Your task to perform on an android device: find which apps use the phone's location Image 0: 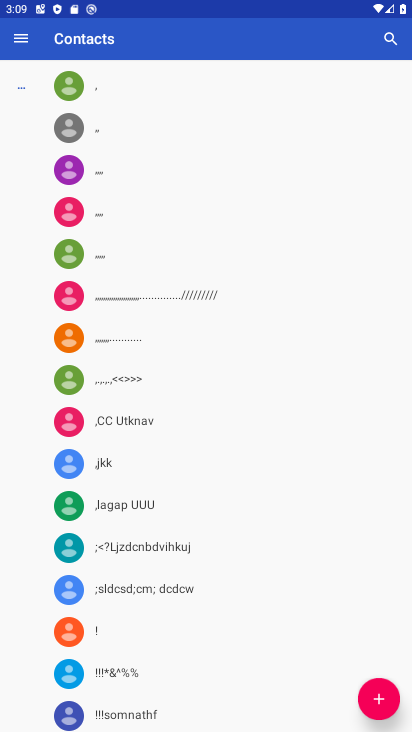
Step 0: press back button
Your task to perform on an android device: find which apps use the phone's location Image 1: 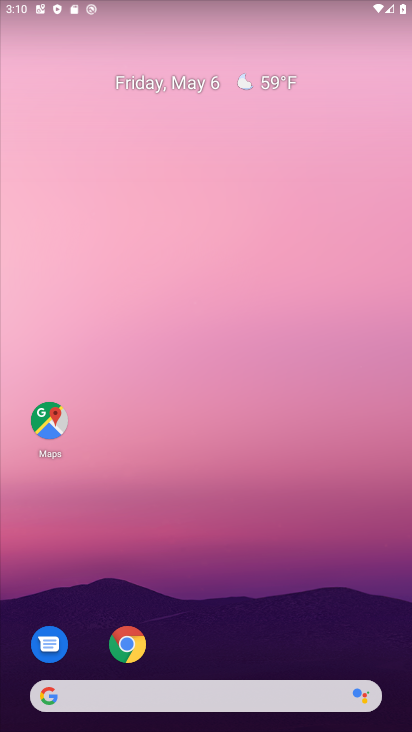
Step 1: drag from (190, 614) to (185, 42)
Your task to perform on an android device: find which apps use the phone's location Image 2: 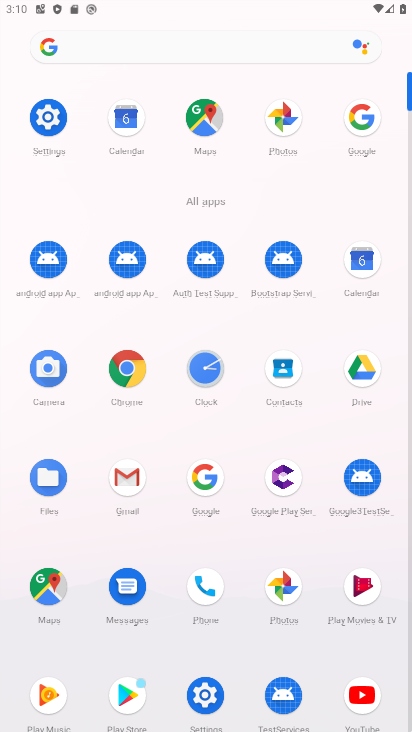
Step 2: click (203, 693)
Your task to perform on an android device: find which apps use the phone's location Image 3: 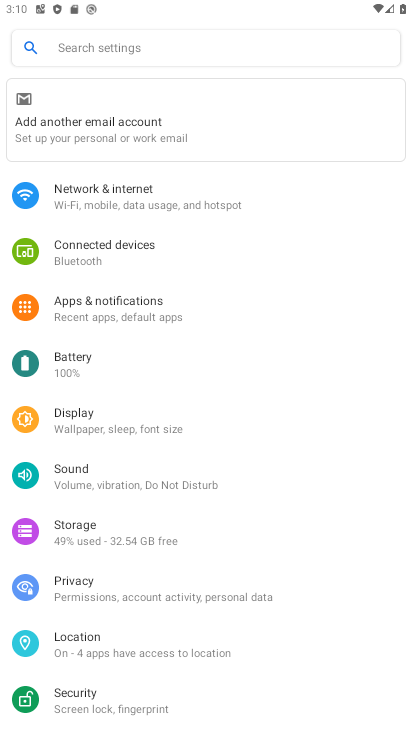
Step 3: click (79, 640)
Your task to perform on an android device: find which apps use the phone's location Image 4: 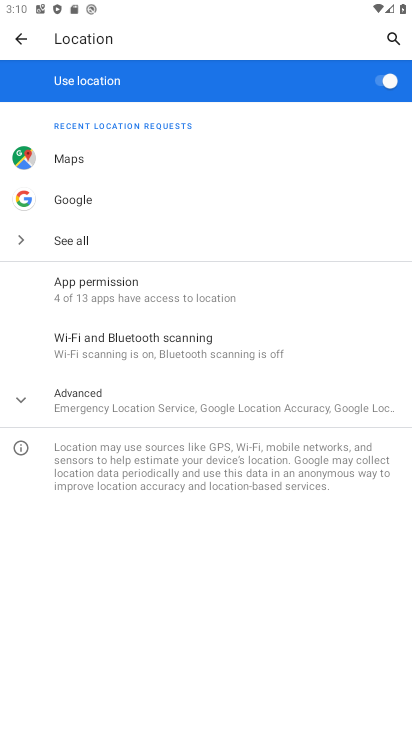
Step 4: click (94, 287)
Your task to perform on an android device: find which apps use the phone's location Image 5: 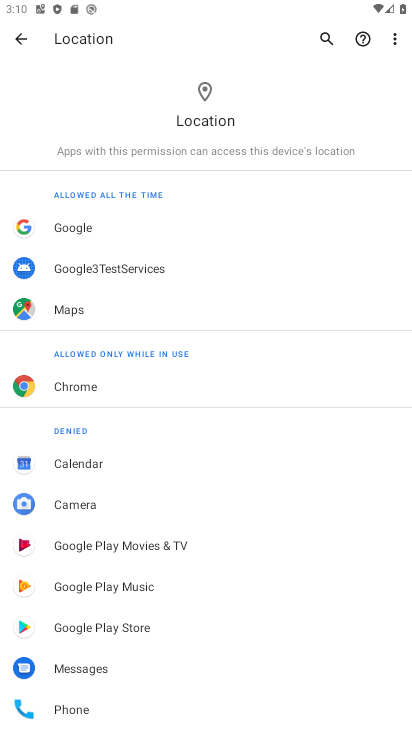
Step 5: click (69, 313)
Your task to perform on an android device: find which apps use the phone's location Image 6: 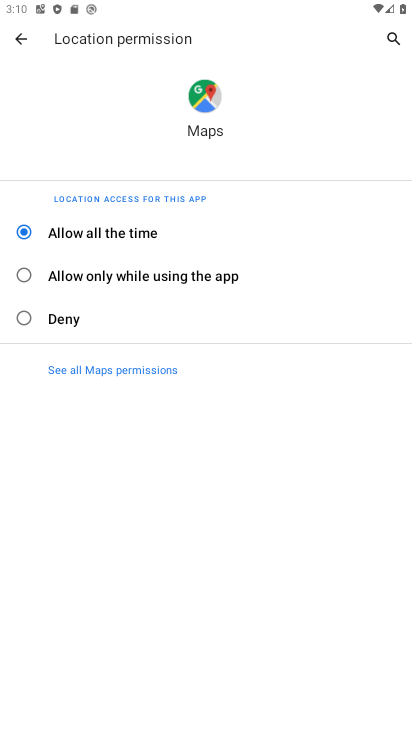
Step 6: click (120, 232)
Your task to perform on an android device: find which apps use the phone's location Image 7: 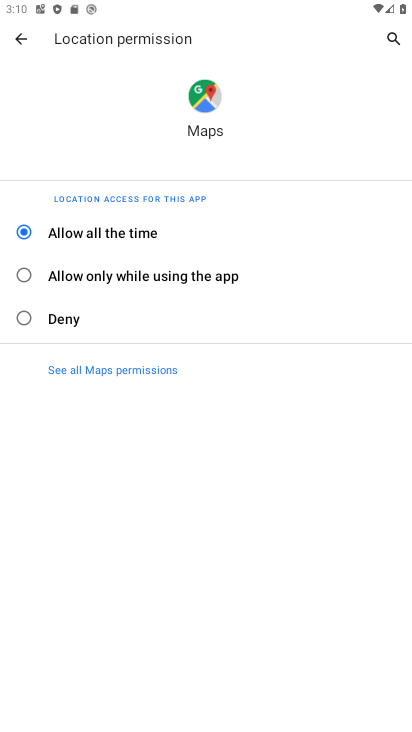
Step 7: task complete